Your task to perform on an android device: What is the news today? Image 0: 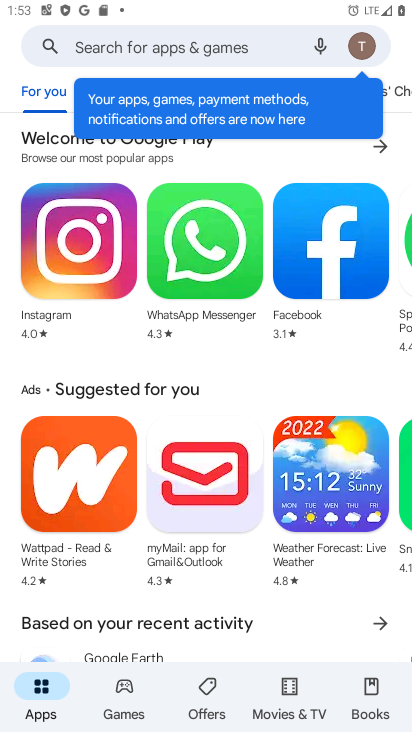
Step 0: press home button
Your task to perform on an android device: What is the news today? Image 1: 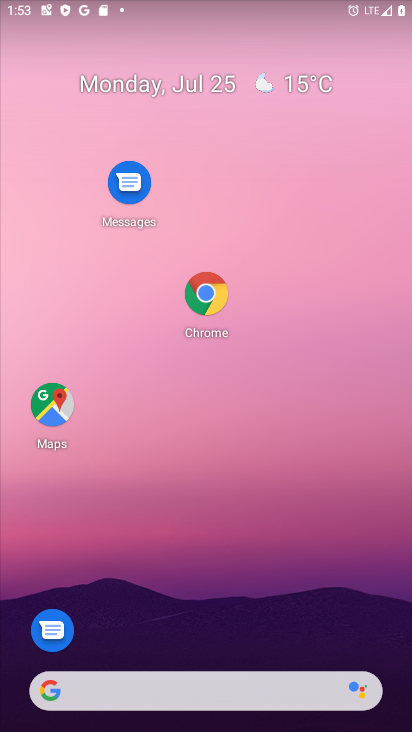
Step 1: drag from (195, 606) to (354, 16)
Your task to perform on an android device: What is the news today? Image 2: 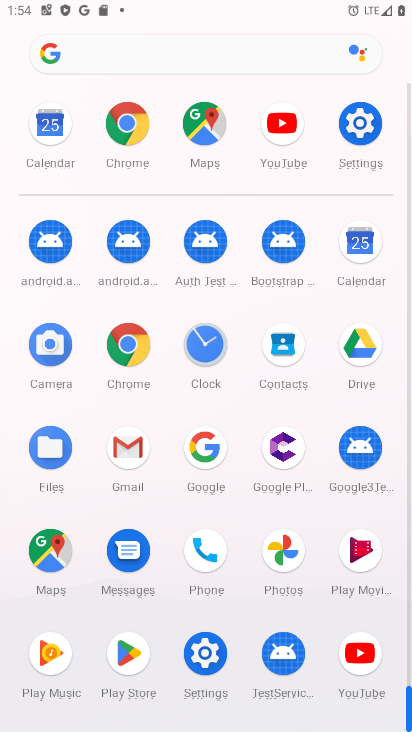
Step 2: click (130, 329)
Your task to perform on an android device: What is the news today? Image 3: 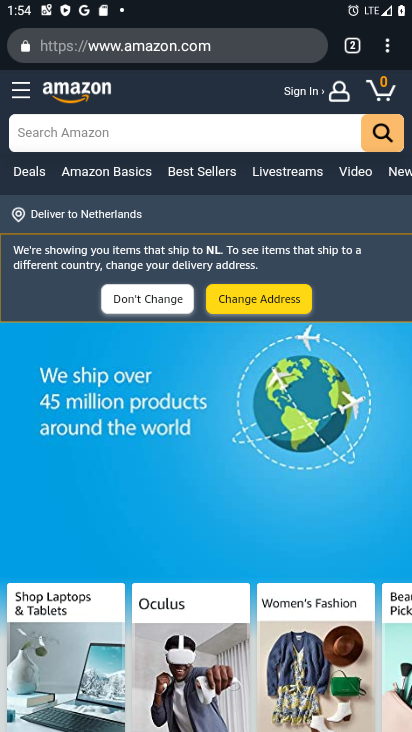
Step 3: click (215, 44)
Your task to perform on an android device: What is the news today? Image 4: 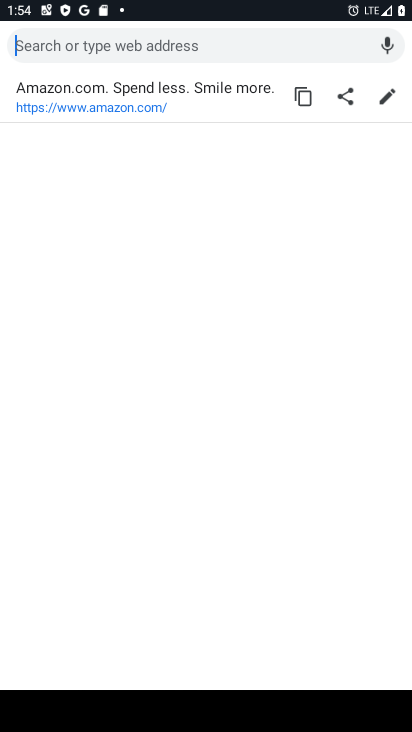
Step 4: type "What is the news today?"
Your task to perform on an android device: What is the news today? Image 5: 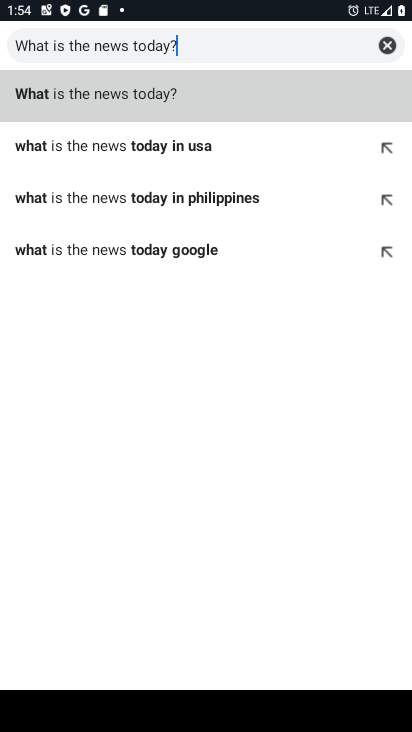
Step 5: click (130, 95)
Your task to perform on an android device: What is the news today? Image 6: 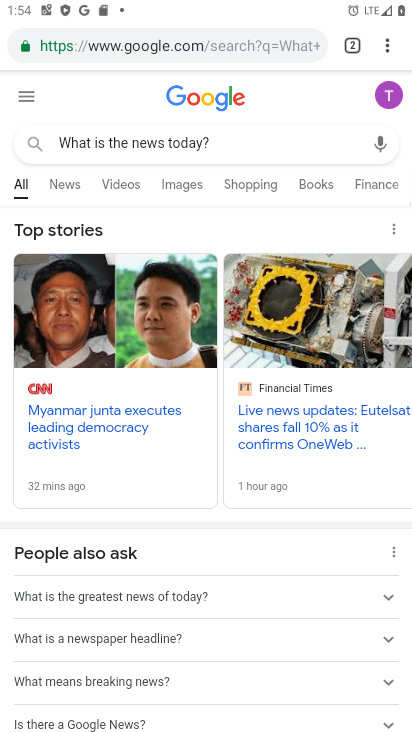
Step 6: click (69, 183)
Your task to perform on an android device: What is the news today? Image 7: 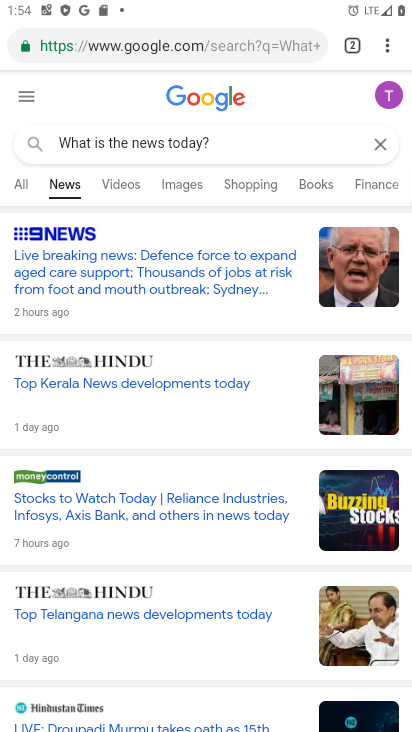
Step 7: task complete